Your task to perform on an android device: What's on my calendar today? Image 0: 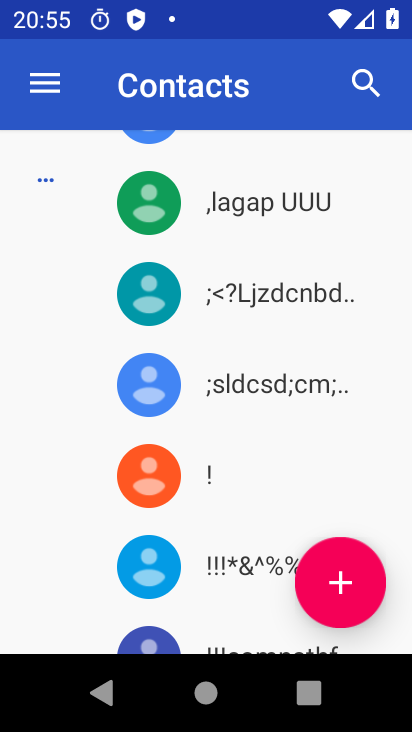
Step 0: press back button
Your task to perform on an android device: What's on my calendar today? Image 1: 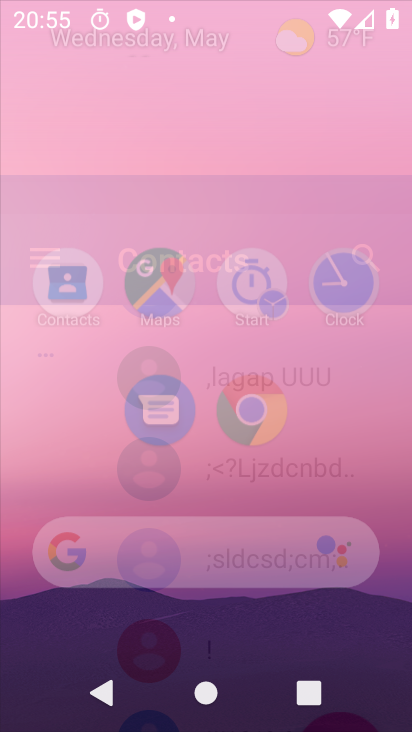
Step 1: press back button
Your task to perform on an android device: What's on my calendar today? Image 2: 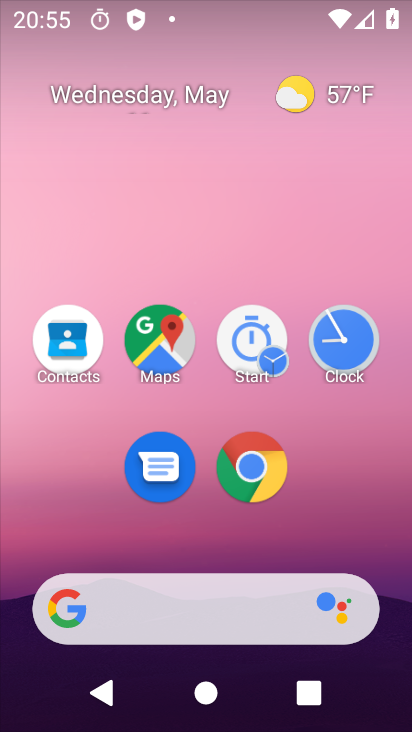
Step 2: drag from (374, 531) to (206, 144)
Your task to perform on an android device: What's on my calendar today? Image 3: 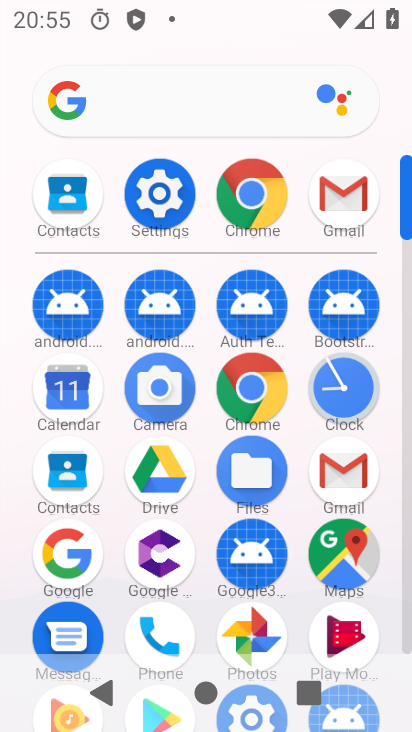
Step 3: click (75, 397)
Your task to perform on an android device: What's on my calendar today? Image 4: 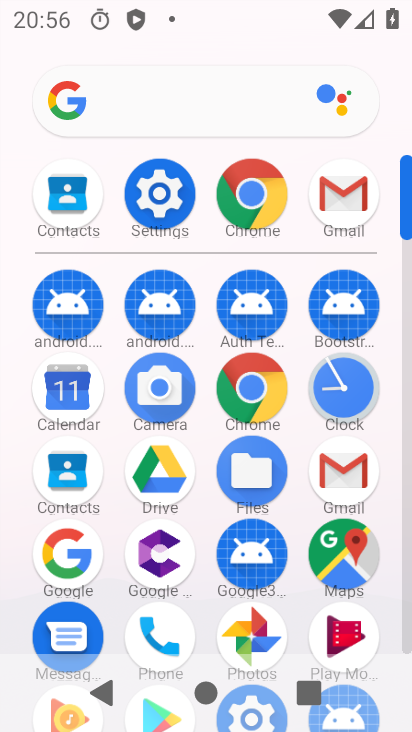
Step 4: click (75, 397)
Your task to perform on an android device: What's on my calendar today? Image 5: 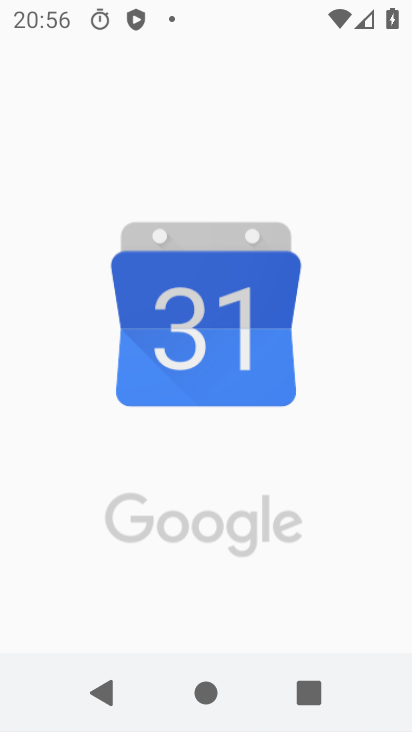
Step 5: click (65, 388)
Your task to perform on an android device: What's on my calendar today? Image 6: 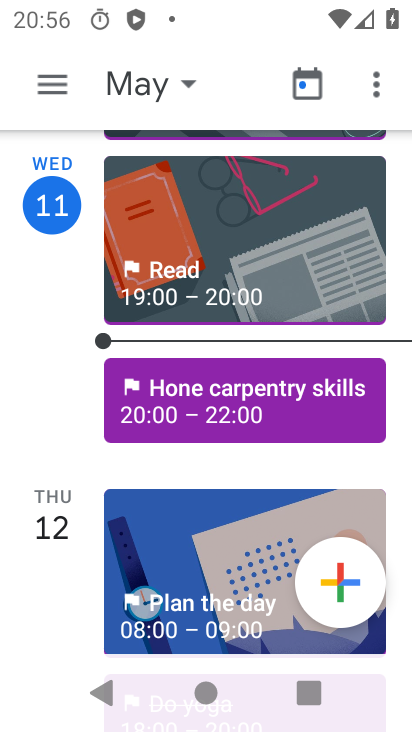
Step 6: task complete